Your task to perform on an android device: allow cookies in the chrome app Image 0: 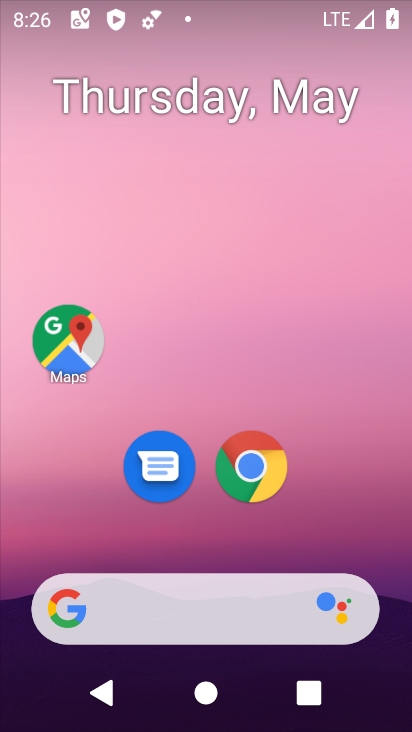
Step 0: click (264, 465)
Your task to perform on an android device: allow cookies in the chrome app Image 1: 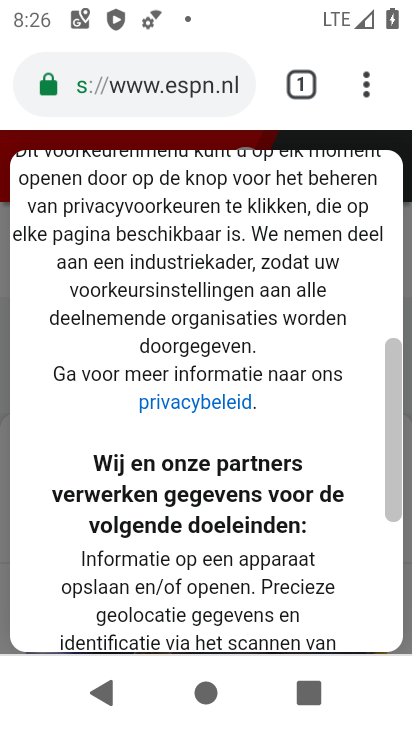
Step 1: click (358, 84)
Your task to perform on an android device: allow cookies in the chrome app Image 2: 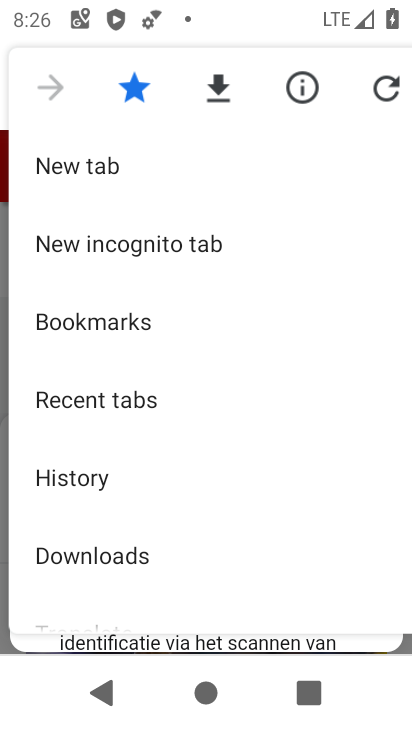
Step 2: drag from (135, 503) to (129, 129)
Your task to perform on an android device: allow cookies in the chrome app Image 3: 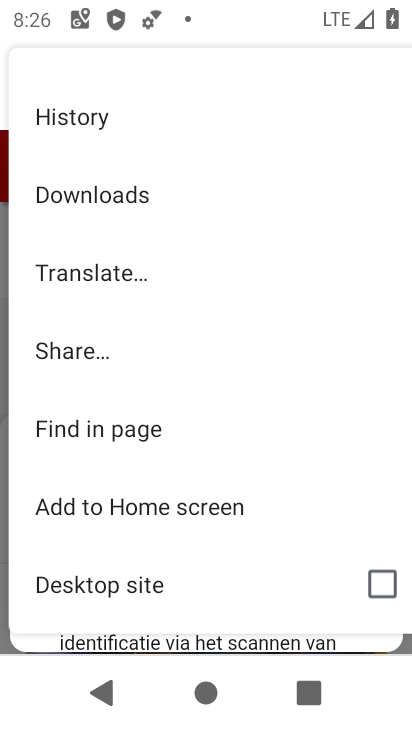
Step 3: drag from (166, 529) to (136, 110)
Your task to perform on an android device: allow cookies in the chrome app Image 4: 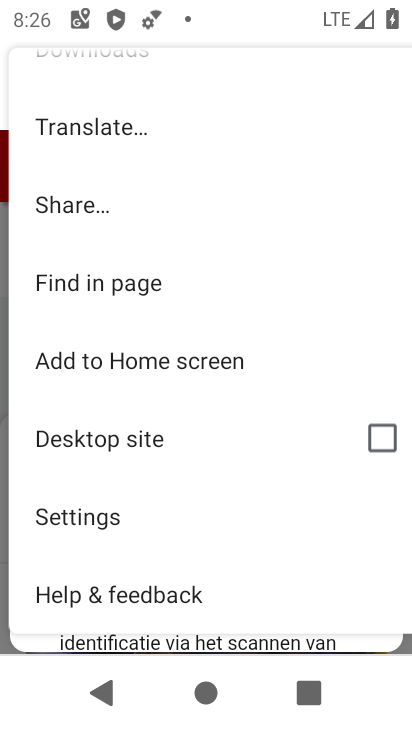
Step 4: click (104, 513)
Your task to perform on an android device: allow cookies in the chrome app Image 5: 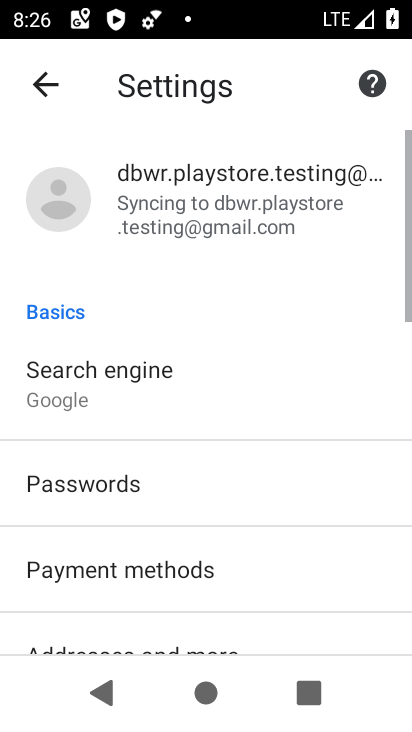
Step 5: drag from (184, 524) to (141, 97)
Your task to perform on an android device: allow cookies in the chrome app Image 6: 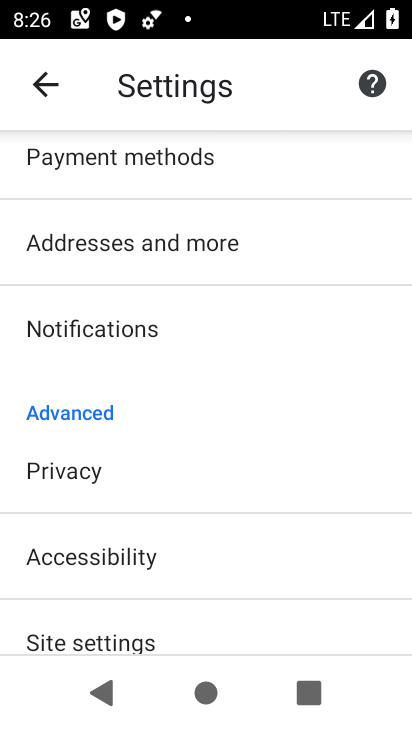
Step 6: drag from (166, 458) to (135, 134)
Your task to perform on an android device: allow cookies in the chrome app Image 7: 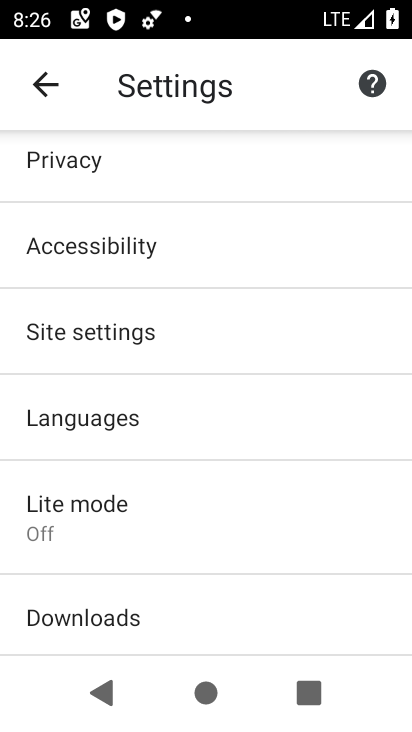
Step 7: click (108, 336)
Your task to perform on an android device: allow cookies in the chrome app Image 8: 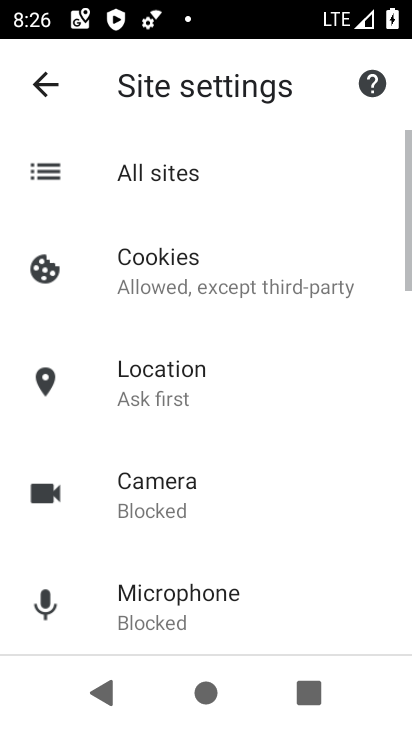
Step 8: click (147, 271)
Your task to perform on an android device: allow cookies in the chrome app Image 9: 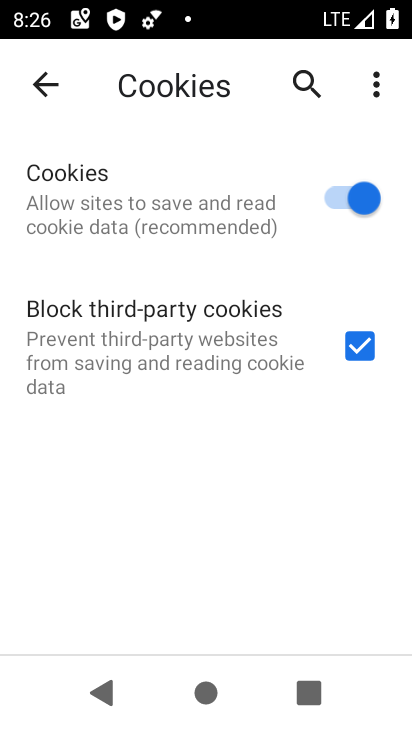
Step 9: task complete